Your task to perform on an android device: clear history in the chrome app Image 0: 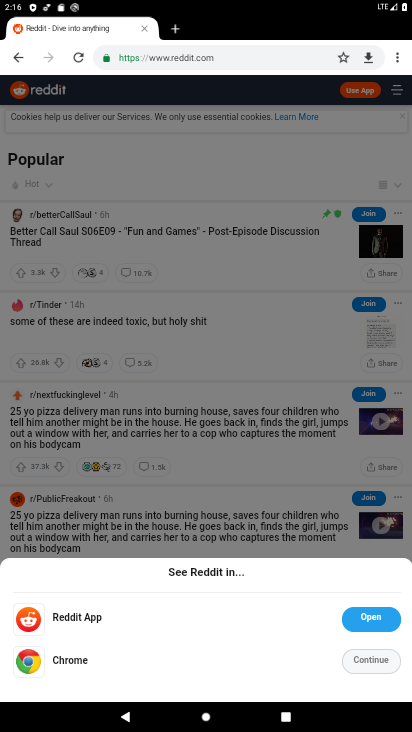
Step 0: click (403, 63)
Your task to perform on an android device: clear history in the chrome app Image 1: 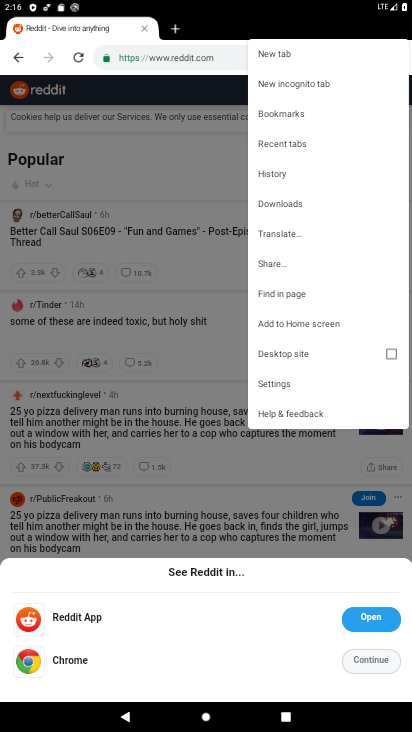
Step 1: click (275, 178)
Your task to perform on an android device: clear history in the chrome app Image 2: 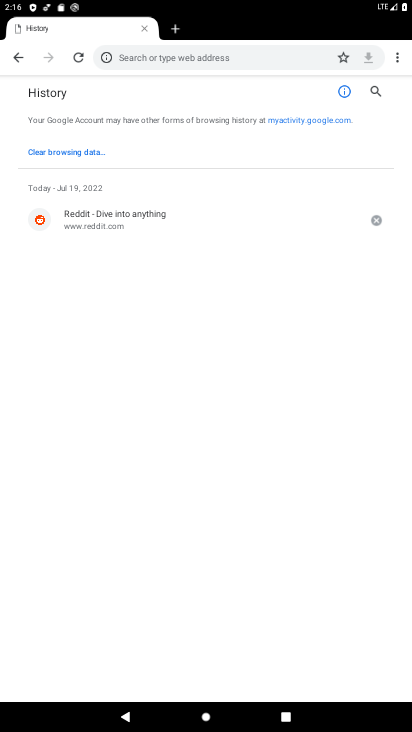
Step 2: click (72, 140)
Your task to perform on an android device: clear history in the chrome app Image 3: 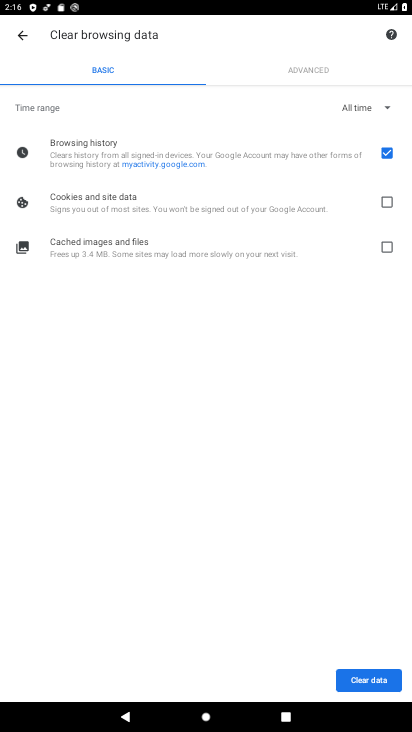
Step 3: click (380, 207)
Your task to perform on an android device: clear history in the chrome app Image 4: 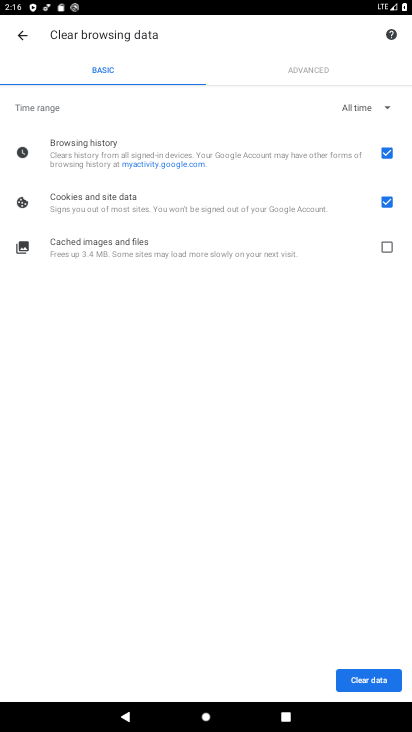
Step 4: click (383, 241)
Your task to perform on an android device: clear history in the chrome app Image 5: 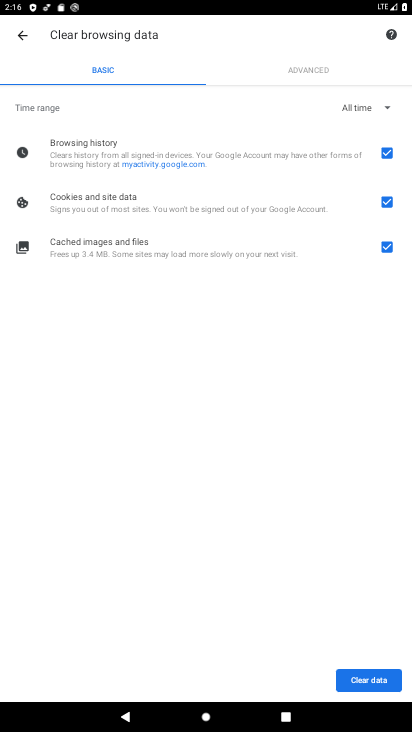
Step 5: click (372, 674)
Your task to perform on an android device: clear history in the chrome app Image 6: 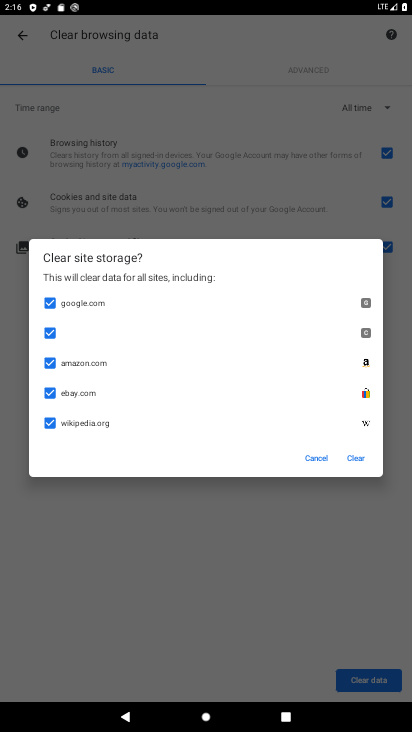
Step 6: click (361, 465)
Your task to perform on an android device: clear history in the chrome app Image 7: 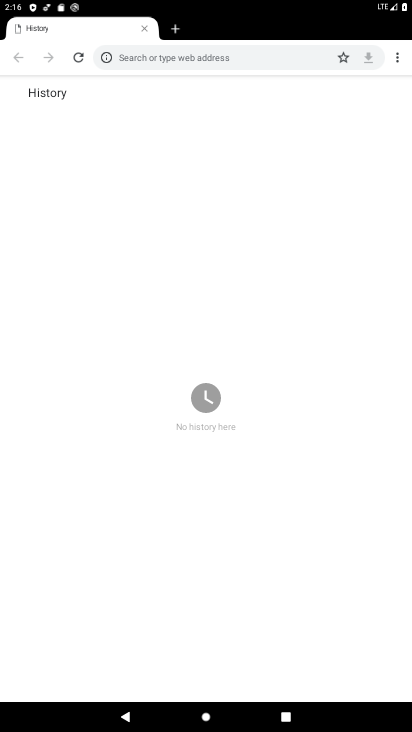
Step 7: task complete